Your task to perform on an android device: Clear all items from cart on target.com. Add "alienware area 51" to the cart on target.com Image 0: 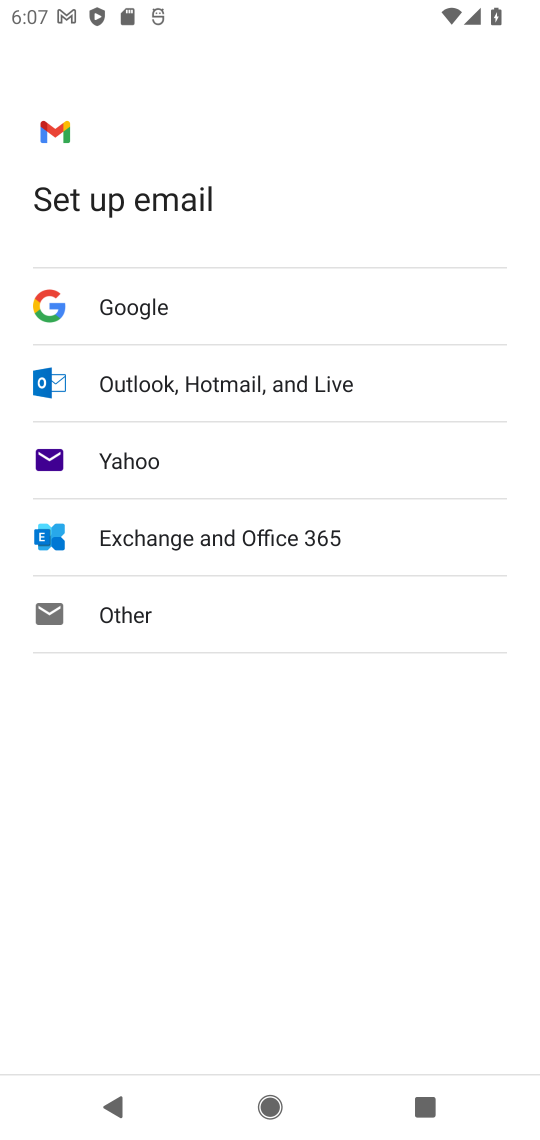
Step 0: press home button
Your task to perform on an android device: Clear all items from cart on target.com. Add "alienware area 51" to the cart on target.com Image 1: 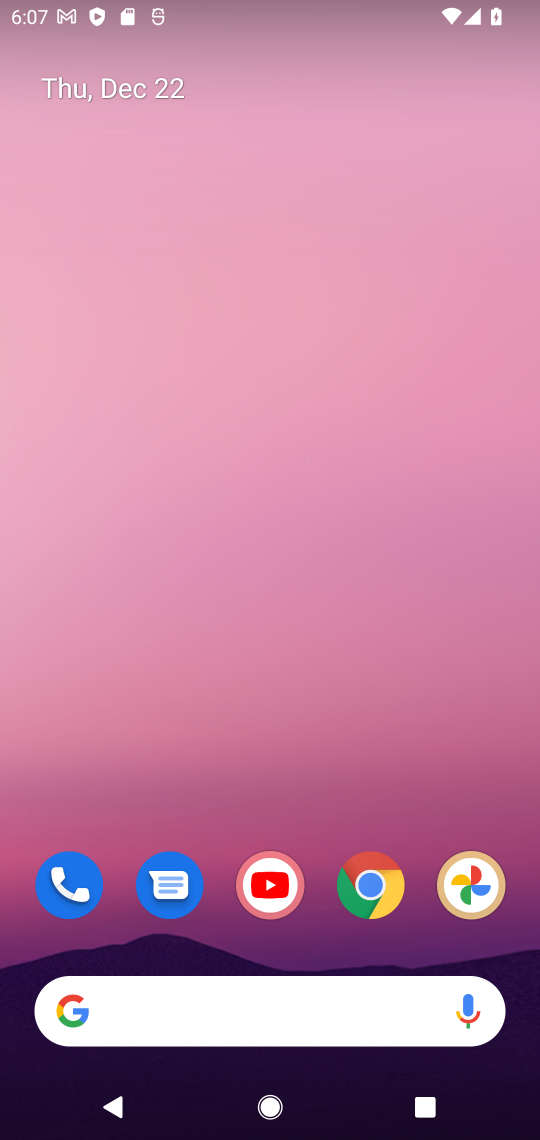
Step 1: click (376, 886)
Your task to perform on an android device: Clear all items from cart on target.com. Add "alienware area 51" to the cart on target.com Image 2: 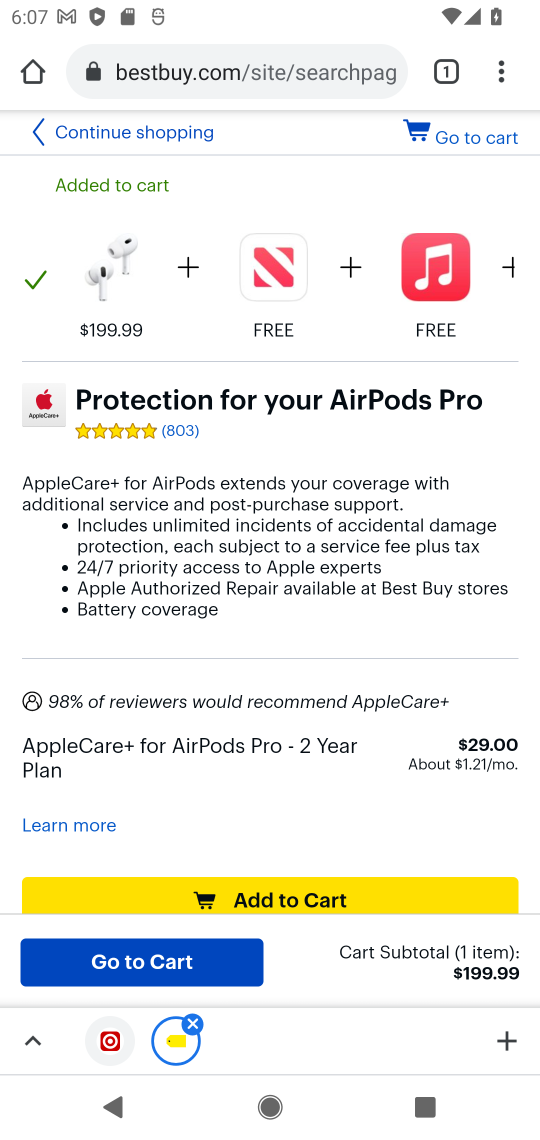
Step 2: click (191, 77)
Your task to perform on an android device: Clear all items from cart on target.com. Add "alienware area 51" to the cart on target.com Image 3: 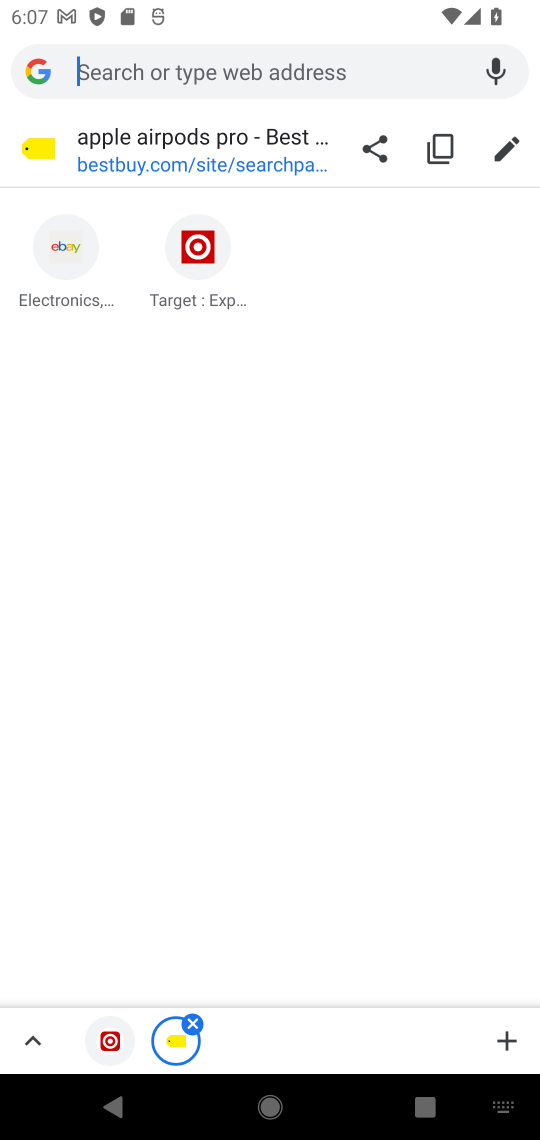
Step 3: click (193, 257)
Your task to perform on an android device: Clear all items from cart on target.com. Add "alienware area 51" to the cart on target.com Image 4: 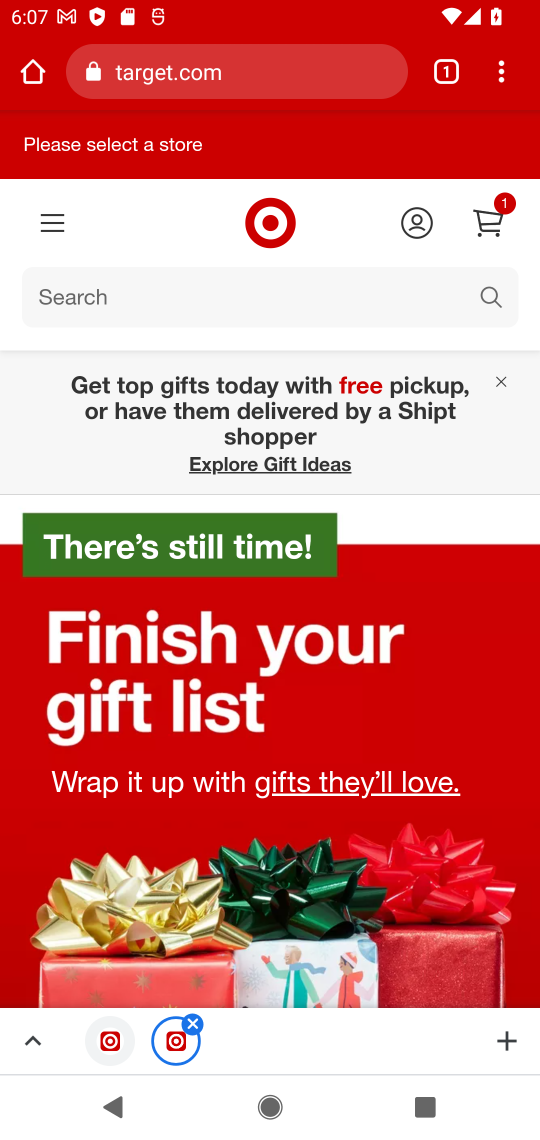
Step 4: click (487, 234)
Your task to perform on an android device: Clear all items from cart on target.com. Add "alienware area 51" to the cart on target.com Image 5: 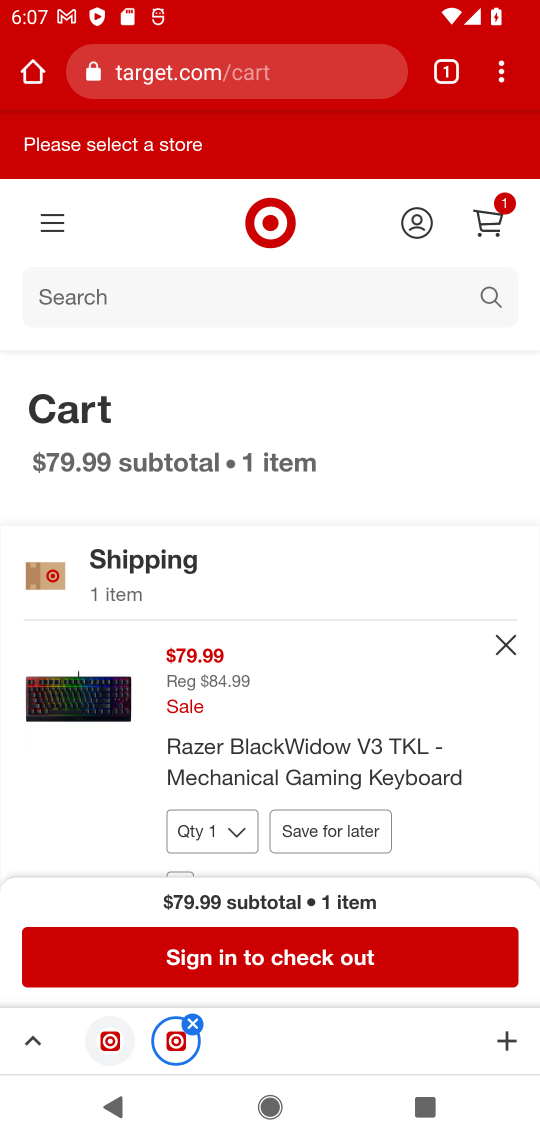
Step 5: click (502, 650)
Your task to perform on an android device: Clear all items from cart on target.com. Add "alienware area 51" to the cart on target.com Image 6: 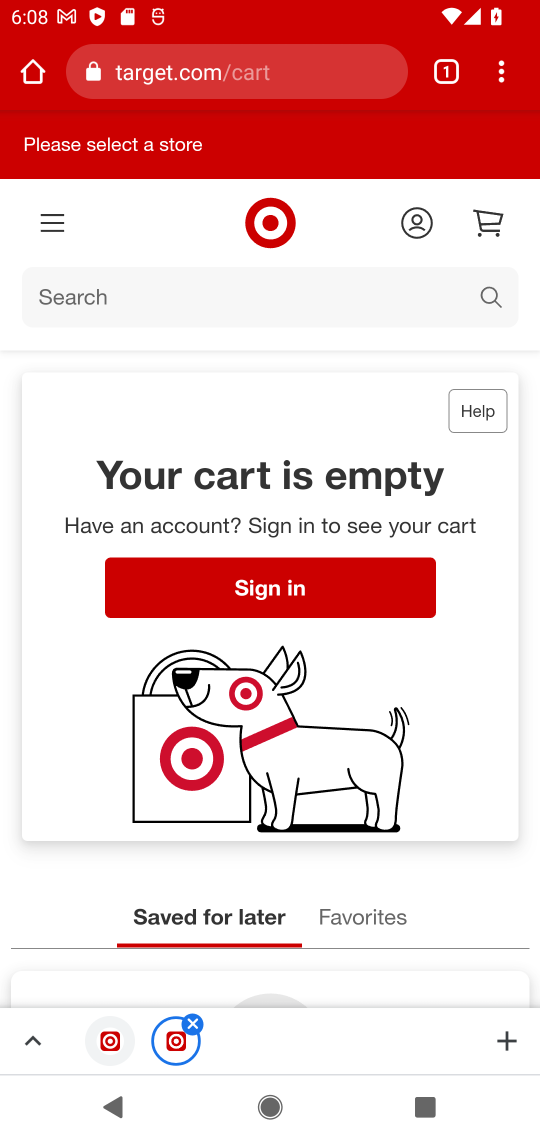
Step 6: click (54, 302)
Your task to perform on an android device: Clear all items from cart on target.com. Add "alienware area 51" to the cart on target.com Image 7: 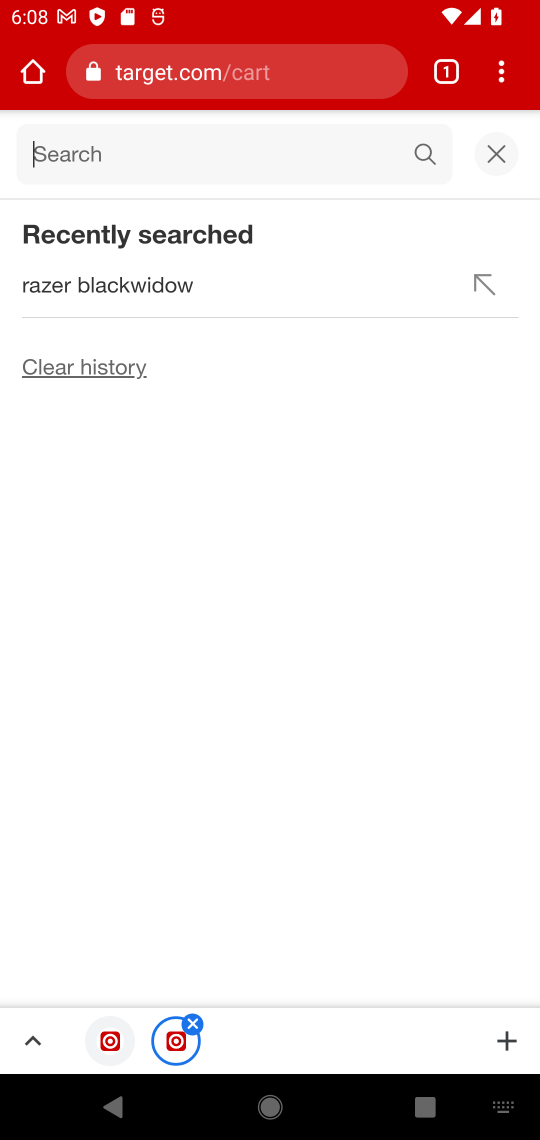
Step 7: type "alienware area 51"
Your task to perform on an android device: Clear all items from cart on target.com. Add "alienware area 51" to the cart on target.com Image 8: 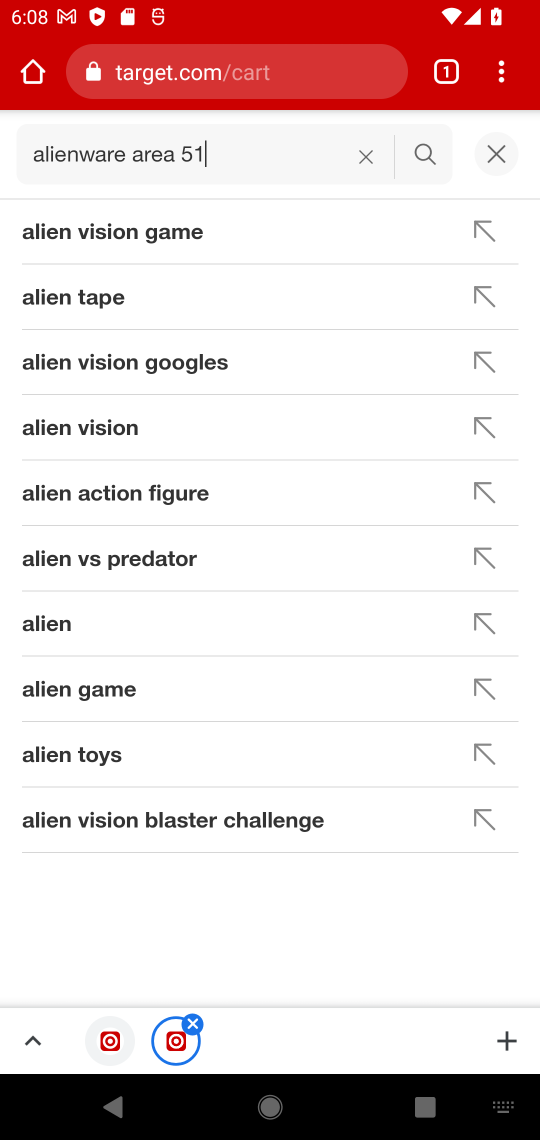
Step 8: click (423, 155)
Your task to perform on an android device: Clear all items from cart on target.com. Add "alienware area 51" to the cart on target.com Image 9: 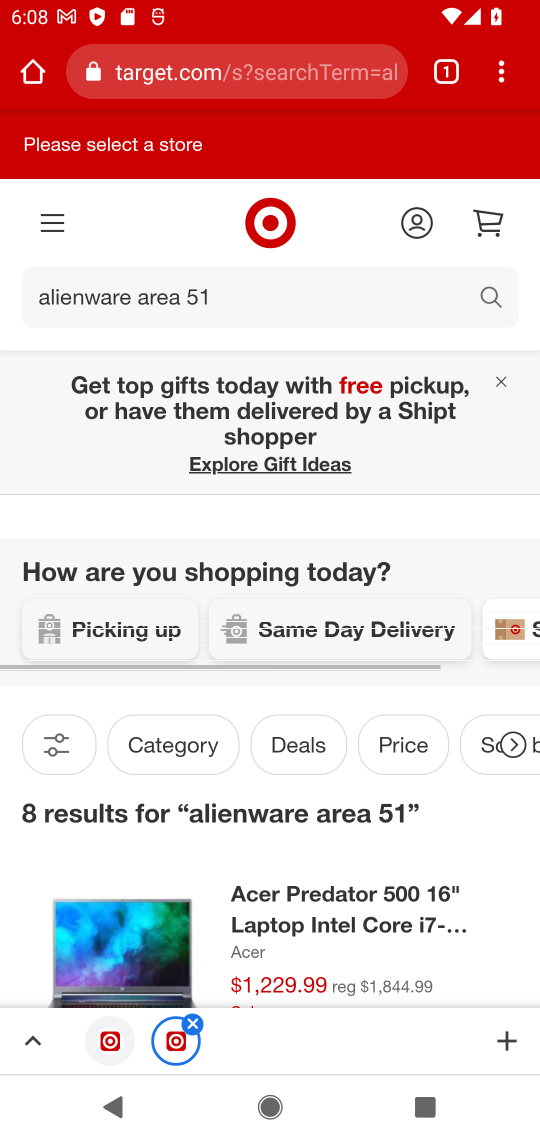
Step 9: task complete